Your task to perform on an android device: open chrome privacy settings Image 0: 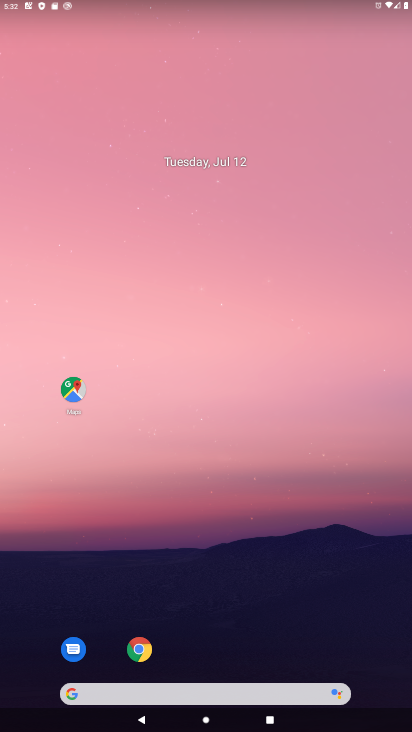
Step 0: click (140, 649)
Your task to perform on an android device: open chrome privacy settings Image 1: 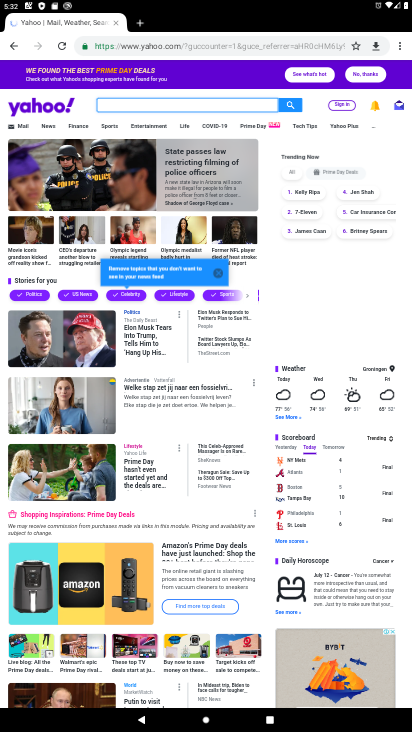
Step 1: click (399, 43)
Your task to perform on an android device: open chrome privacy settings Image 2: 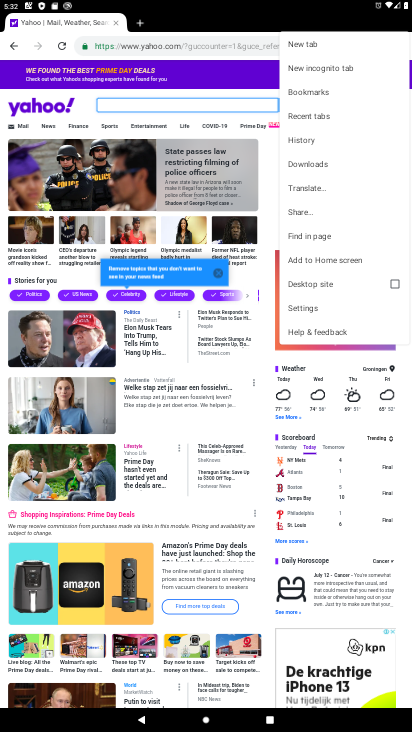
Step 2: click (303, 308)
Your task to perform on an android device: open chrome privacy settings Image 3: 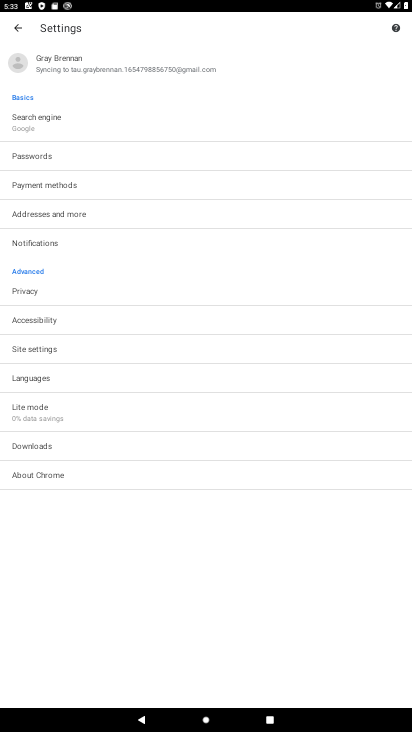
Step 3: click (23, 292)
Your task to perform on an android device: open chrome privacy settings Image 4: 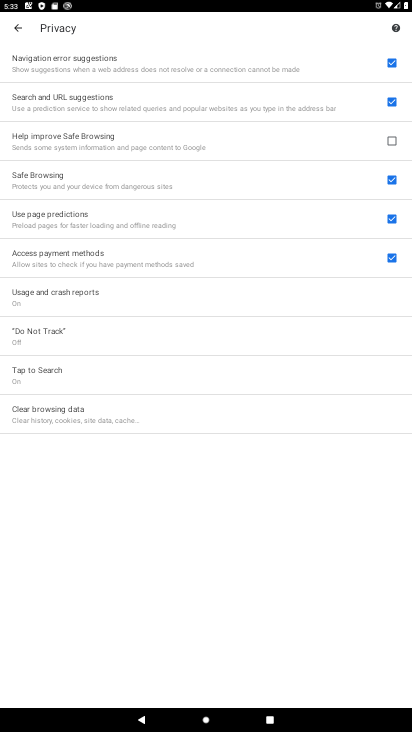
Step 4: task complete